Your task to perform on an android device: create a new album in the google photos Image 0: 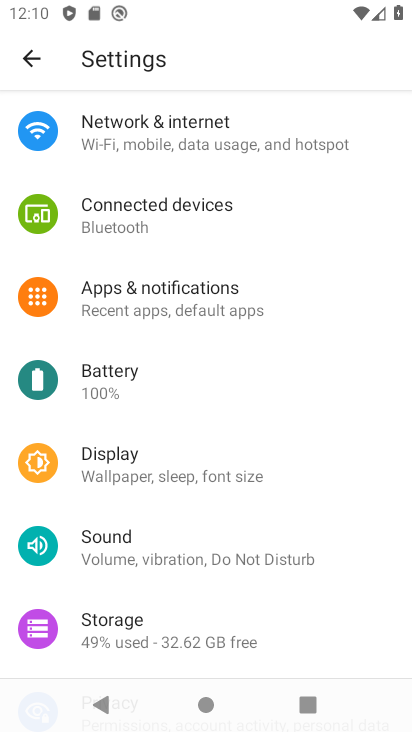
Step 0: press home button
Your task to perform on an android device: create a new album in the google photos Image 1: 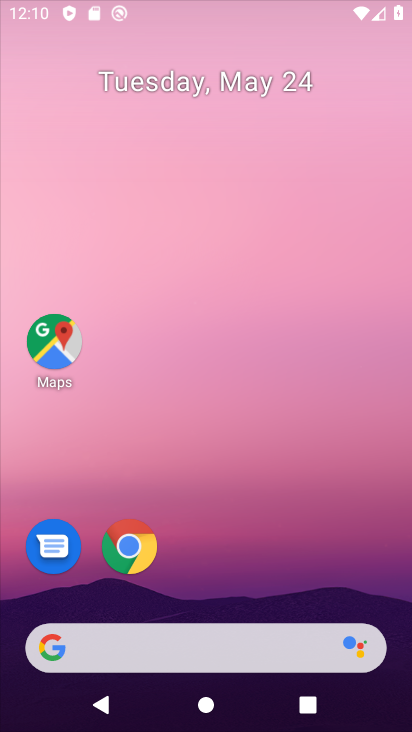
Step 1: drag from (286, 688) to (133, 41)
Your task to perform on an android device: create a new album in the google photos Image 2: 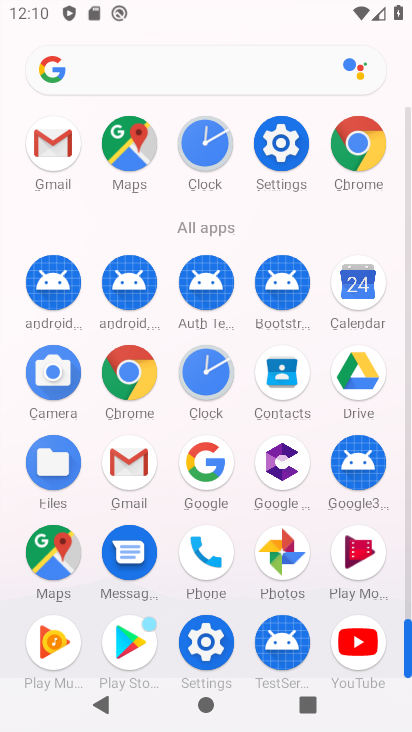
Step 2: click (285, 544)
Your task to perform on an android device: create a new album in the google photos Image 3: 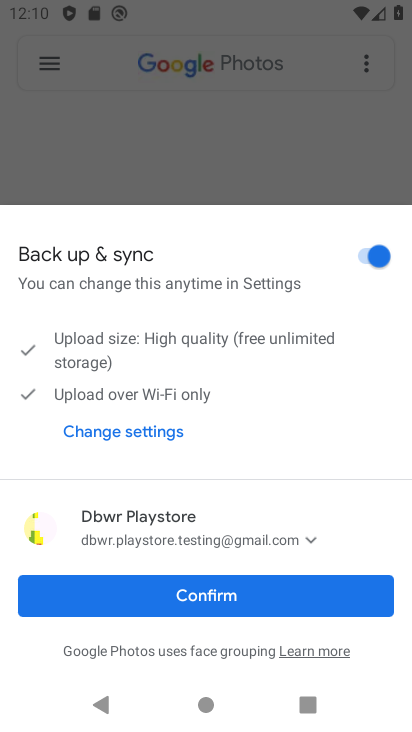
Step 3: click (243, 602)
Your task to perform on an android device: create a new album in the google photos Image 4: 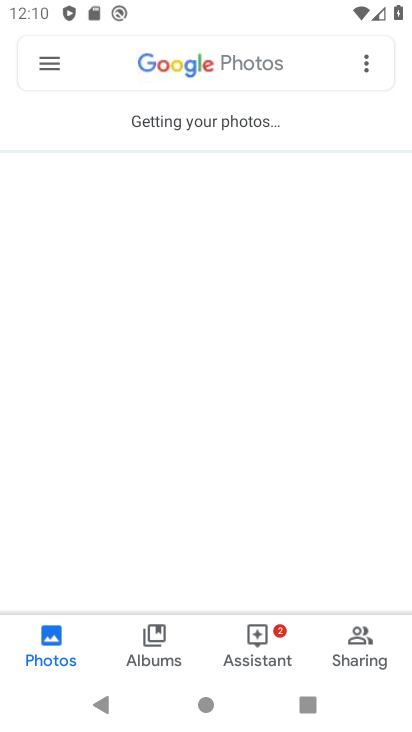
Step 4: click (150, 636)
Your task to perform on an android device: create a new album in the google photos Image 5: 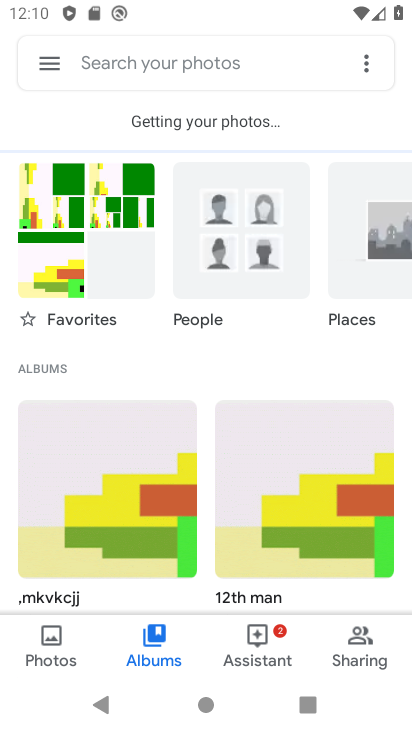
Step 5: drag from (241, 530) to (321, 186)
Your task to perform on an android device: create a new album in the google photos Image 6: 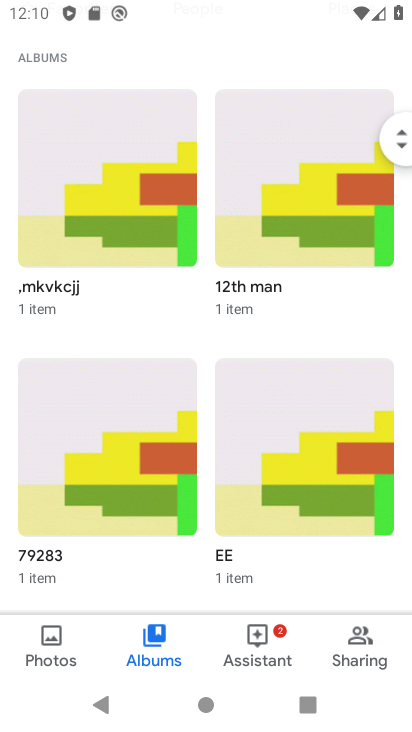
Step 6: drag from (145, 43) to (161, 710)
Your task to perform on an android device: create a new album in the google photos Image 7: 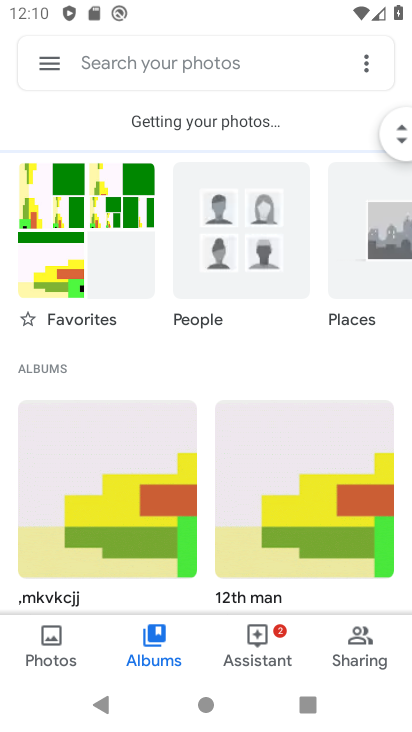
Step 7: drag from (326, 280) to (21, 358)
Your task to perform on an android device: create a new album in the google photos Image 8: 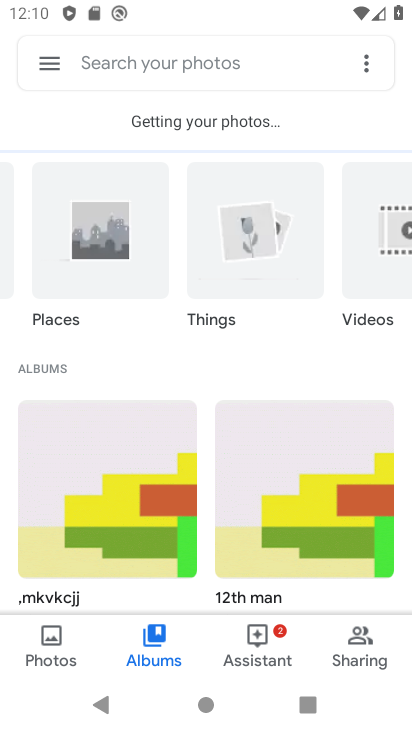
Step 8: click (370, 63)
Your task to perform on an android device: create a new album in the google photos Image 9: 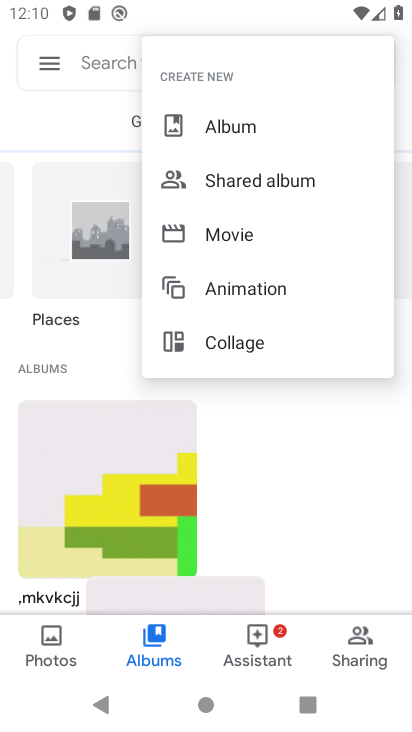
Step 9: click (224, 124)
Your task to perform on an android device: create a new album in the google photos Image 10: 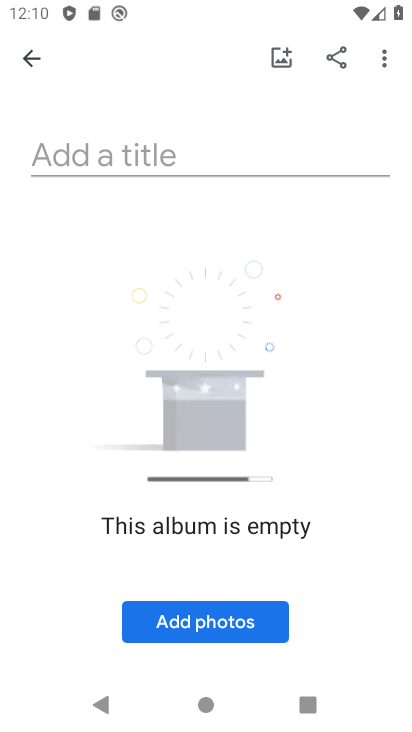
Step 10: click (252, 144)
Your task to perform on an android device: create a new album in the google photos Image 11: 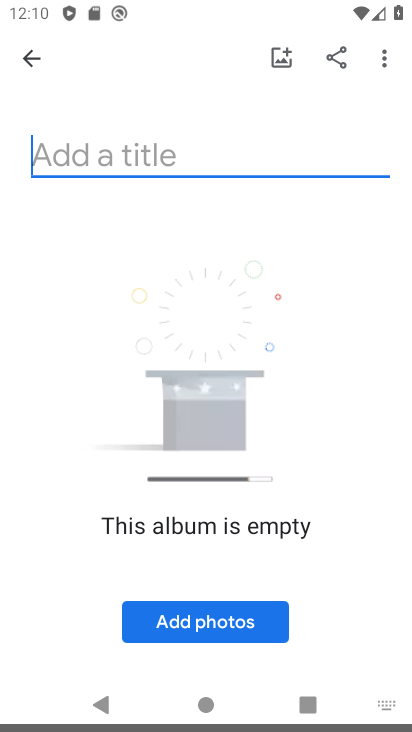
Step 11: click (252, 144)
Your task to perform on an android device: create a new album in the google photos Image 12: 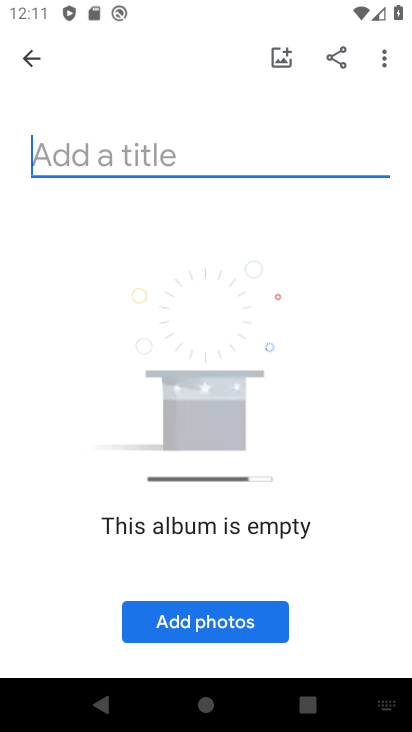
Step 12: type "bfcfbccnv"
Your task to perform on an android device: create a new album in the google photos Image 13: 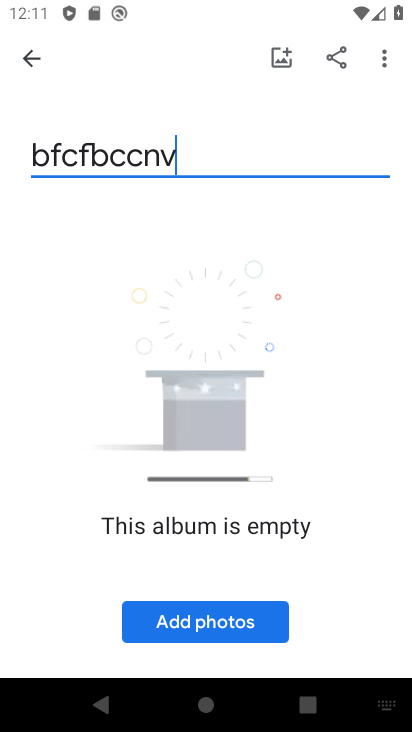
Step 13: click (242, 612)
Your task to perform on an android device: create a new album in the google photos Image 14: 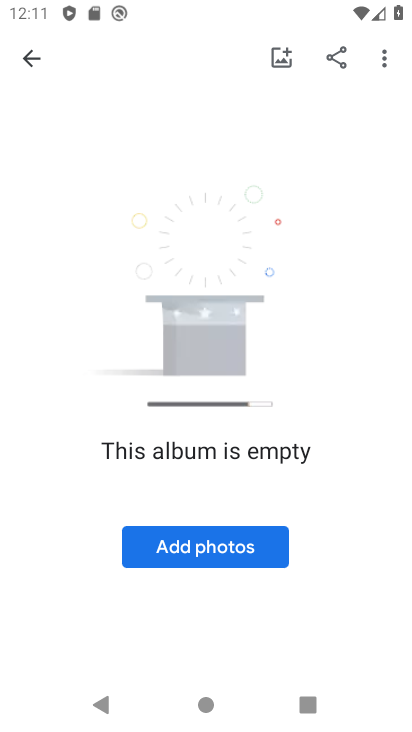
Step 14: click (228, 559)
Your task to perform on an android device: create a new album in the google photos Image 15: 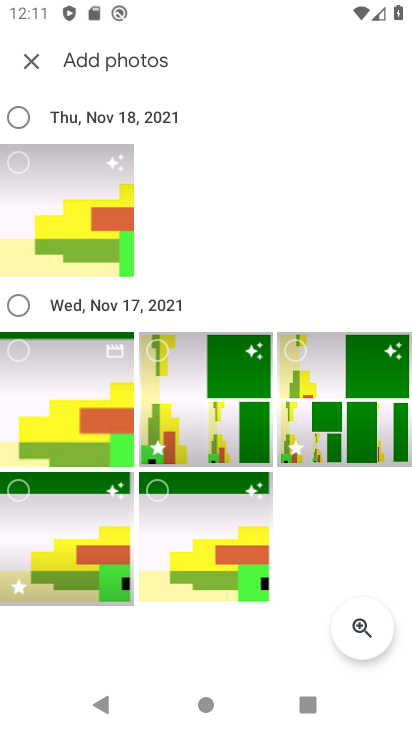
Step 15: click (43, 190)
Your task to perform on an android device: create a new album in the google photos Image 16: 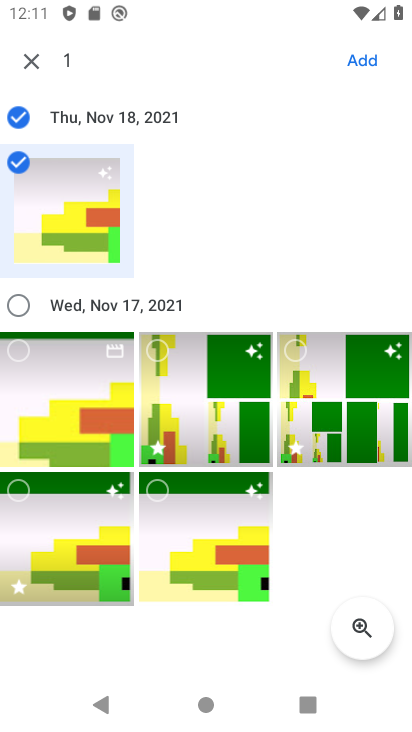
Step 16: click (352, 59)
Your task to perform on an android device: create a new album in the google photos Image 17: 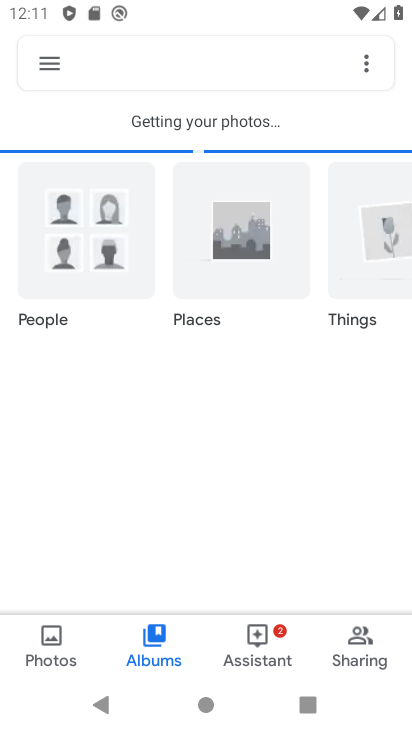
Step 17: task complete